Your task to perform on an android device: Open calendar and show me the first week of next month Image 0: 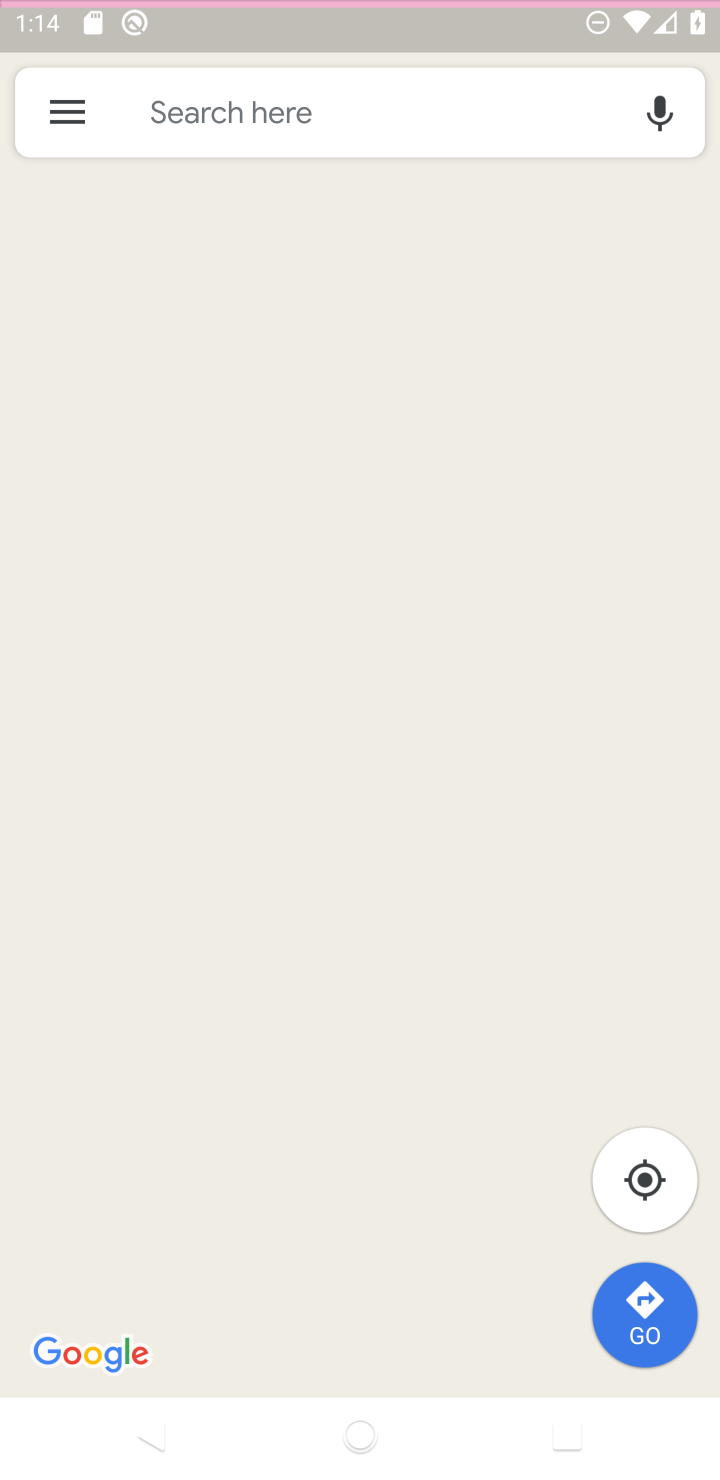
Step 0: drag from (558, 1367) to (549, 949)
Your task to perform on an android device: Open calendar and show me the first week of next month Image 1: 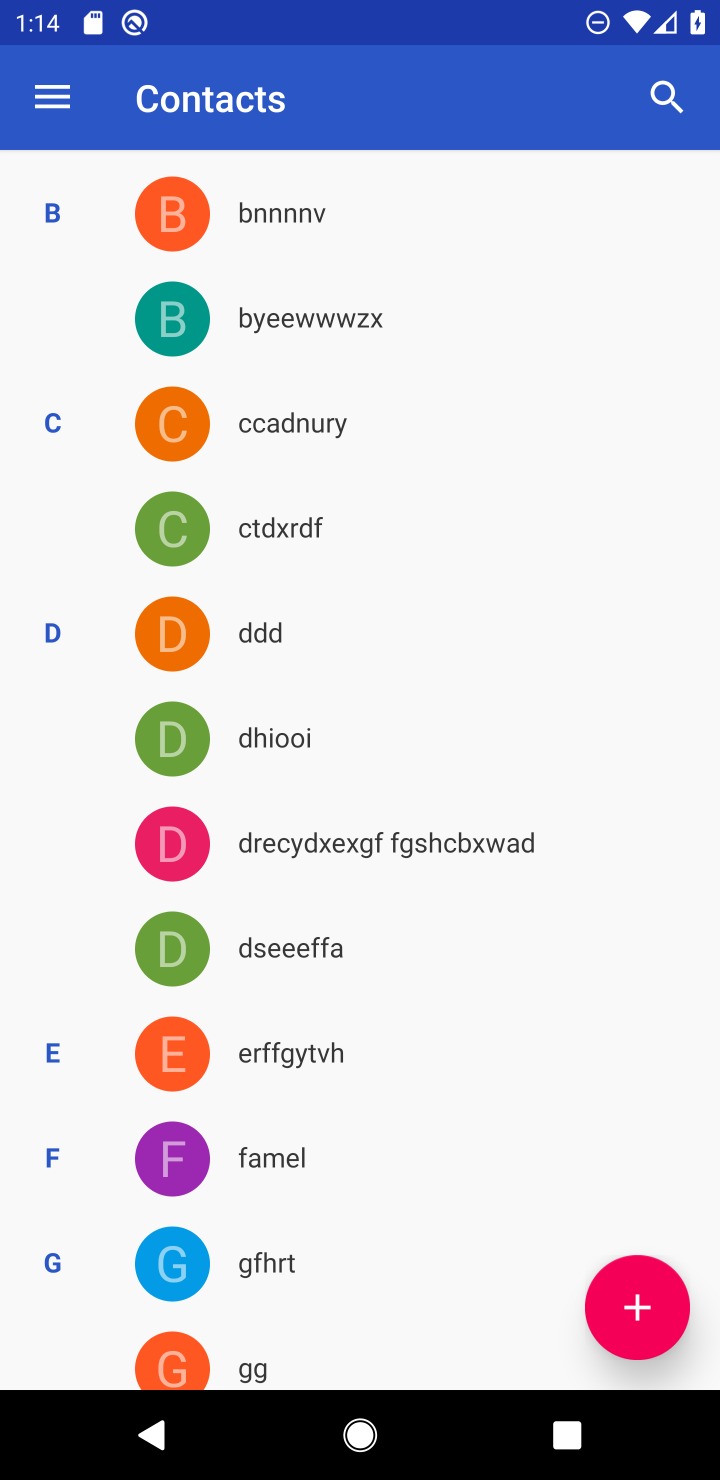
Step 1: drag from (607, 20) to (450, 1199)
Your task to perform on an android device: Open calendar and show me the first week of next month Image 2: 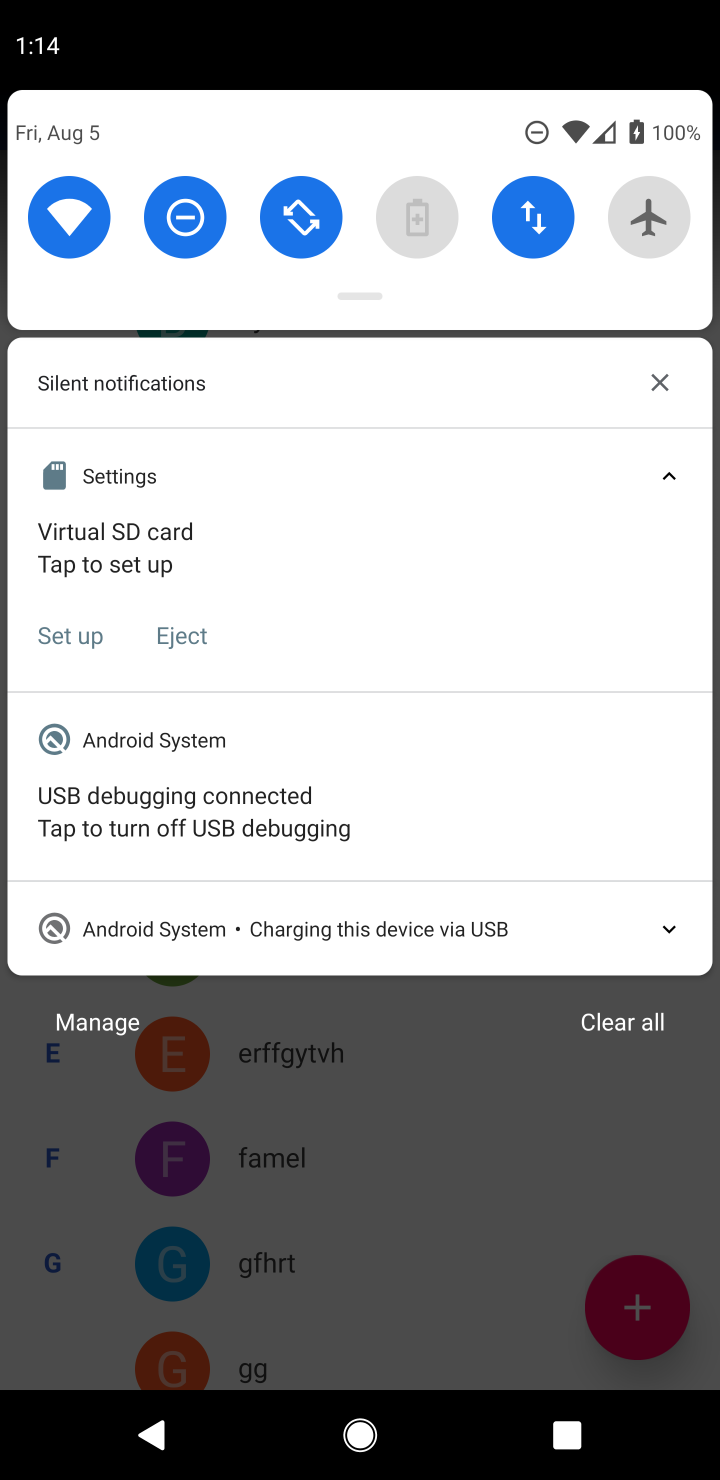
Step 2: press back button
Your task to perform on an android device: Open calendar and show me the first week of next month Image 3: 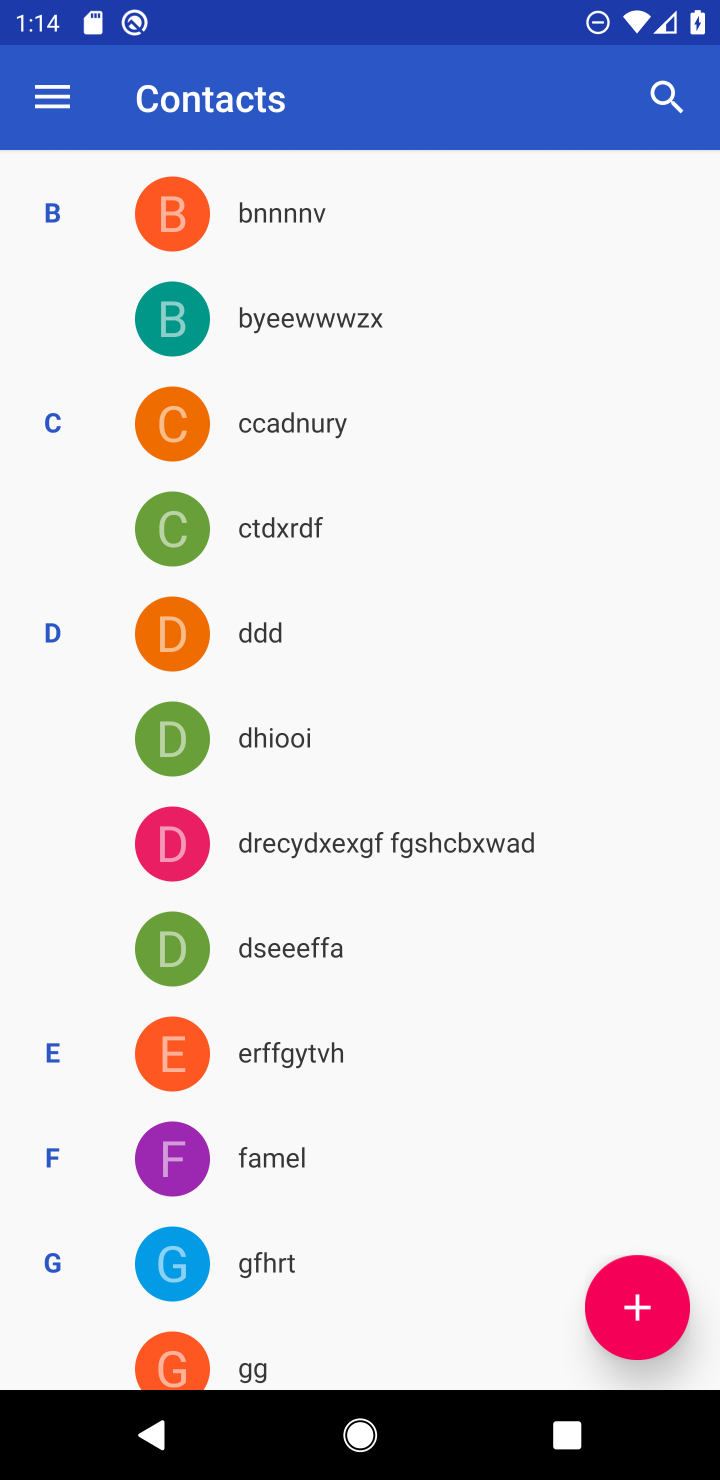
Step 3: press home button
Your task to perform on an android device: Open calendar and show me the first week of next month Image 4: 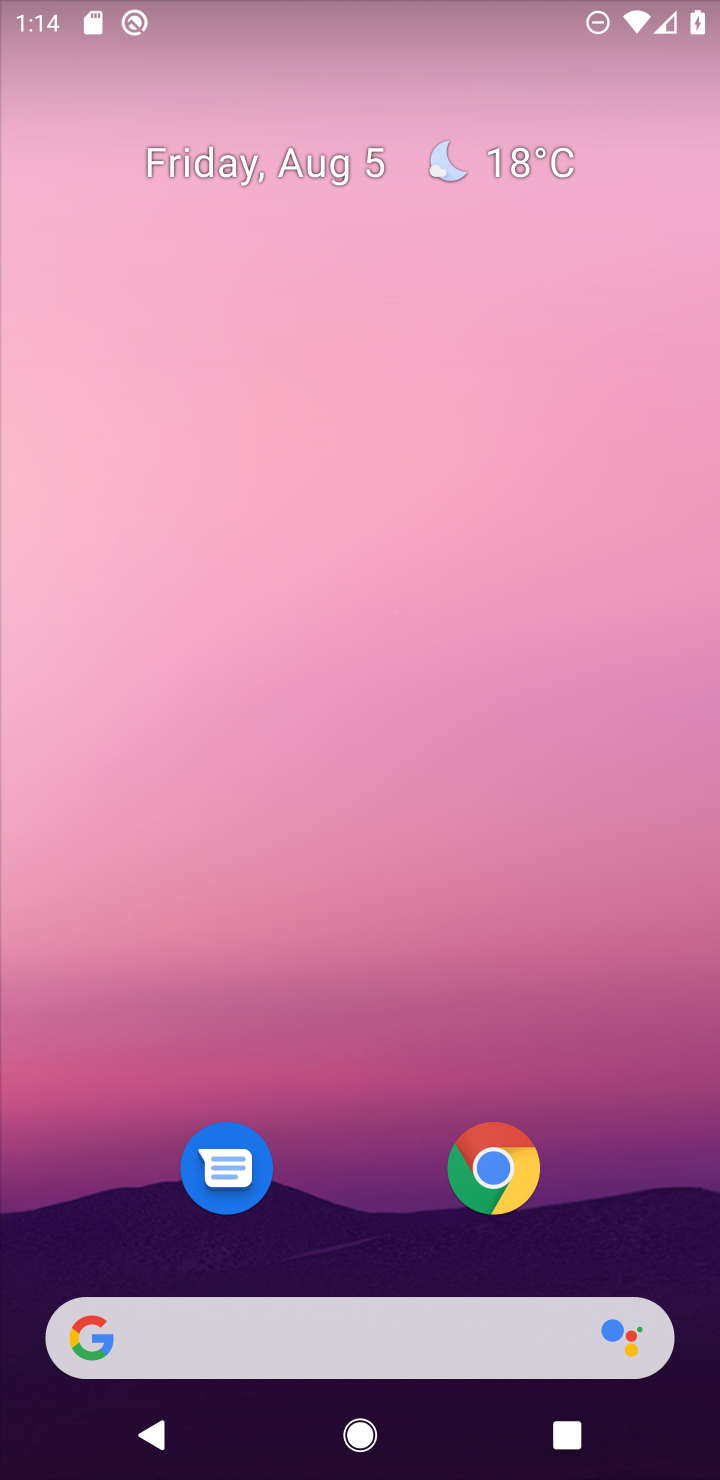
Step 4: drag from (321, 1173) to (510, 90)
Your task to perform on an android device: Open calendar and show me the first week of next month Image 5: 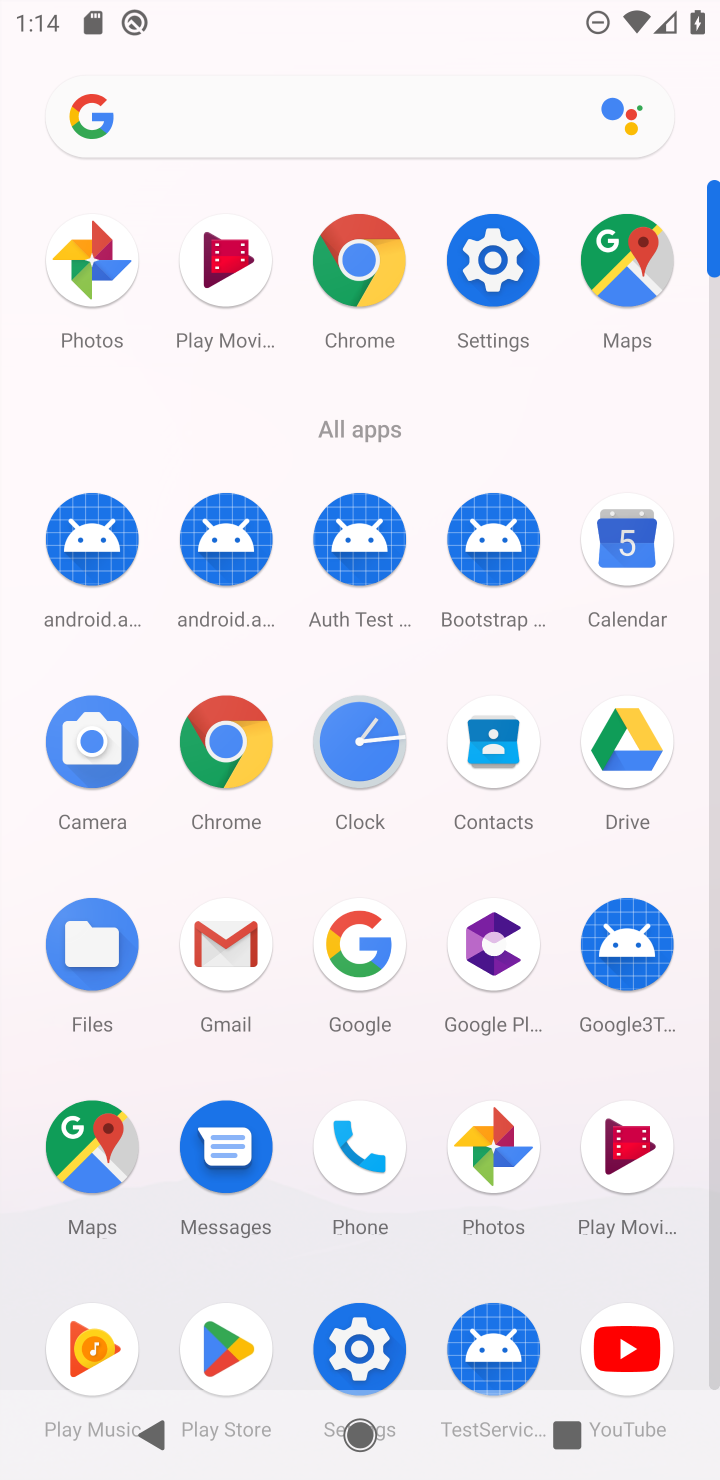
Step 5: click (599, 556)
Your task to perform on an android device: Open calendar and show me the first week of next month Image 6: 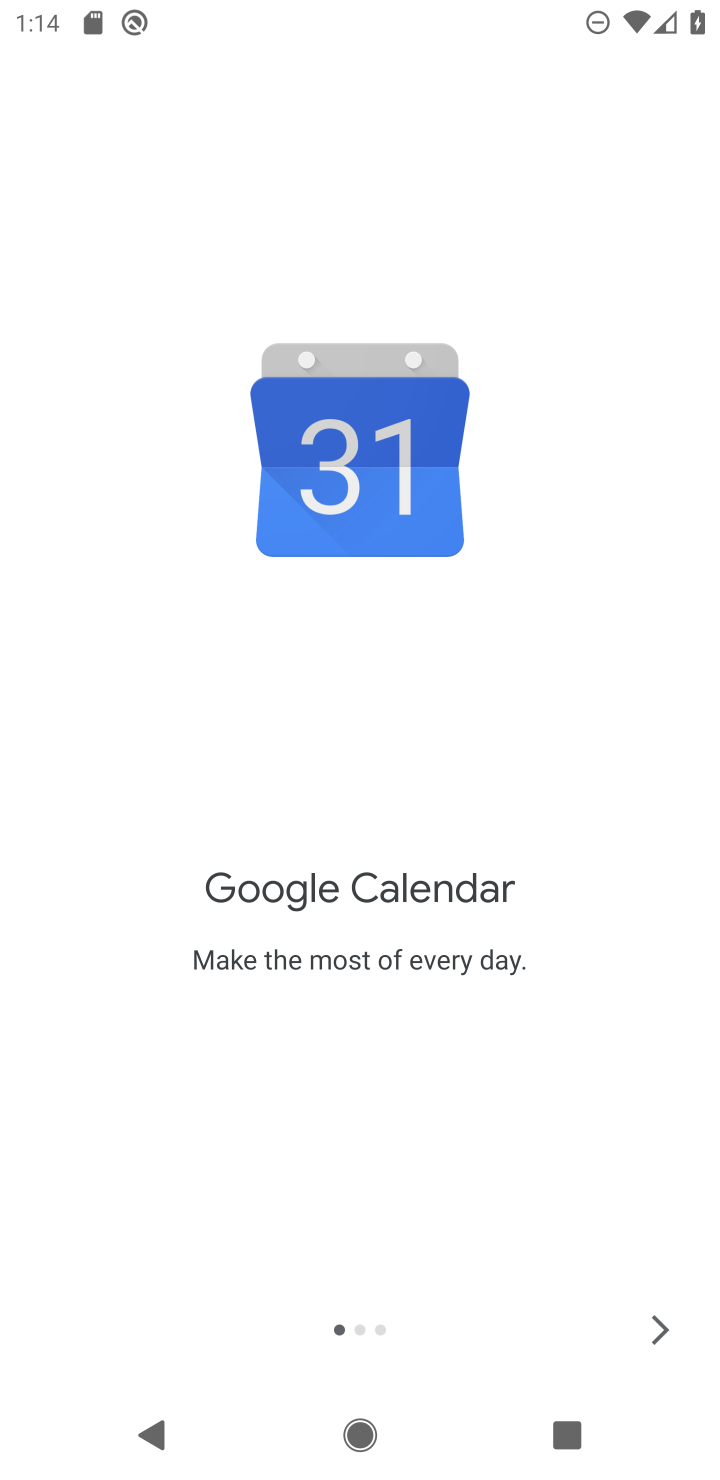
Step 6: click (674, 1326)
Your task to perform on an android device: Open calendar and show me the first week of next month Image 7: 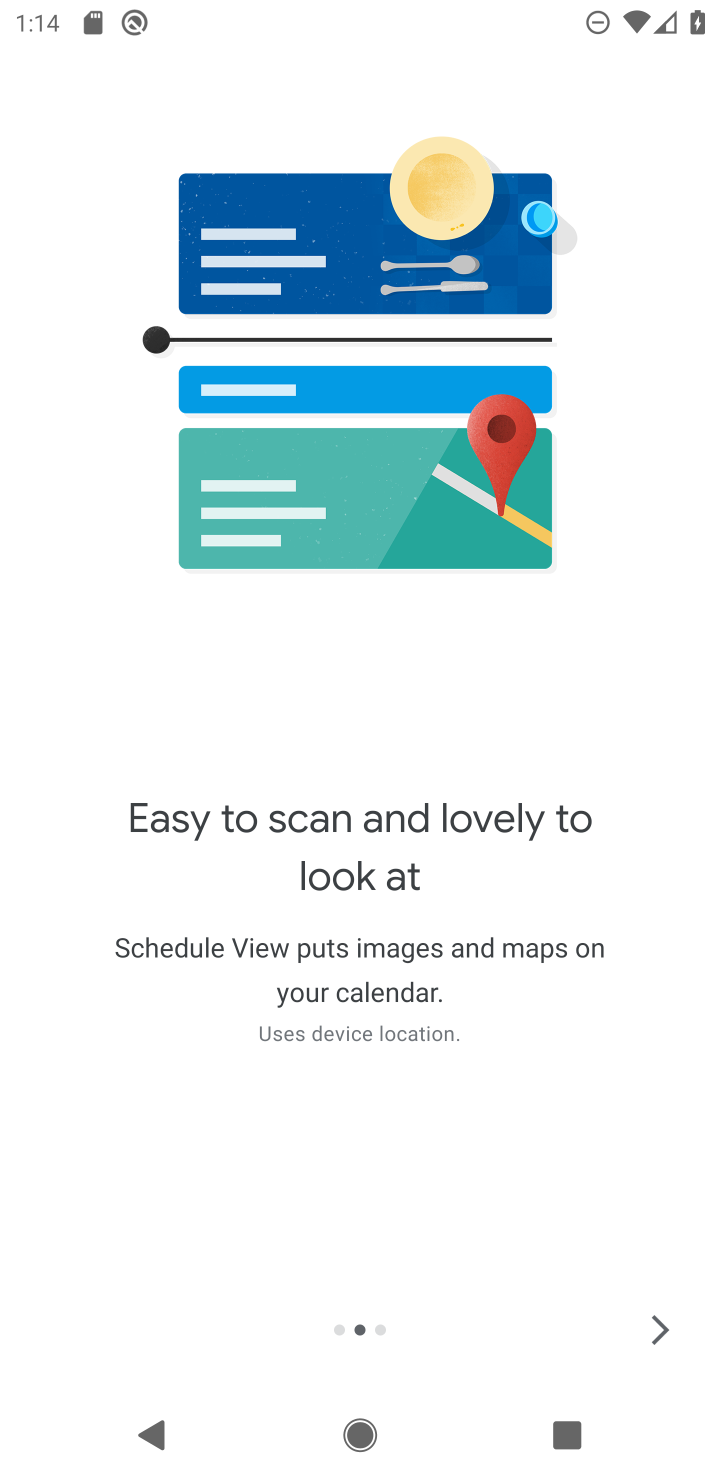
Step 7: click (663, 1326)
Your task to perform on an android device: Open calendar and show me the first week of next month Image 8: 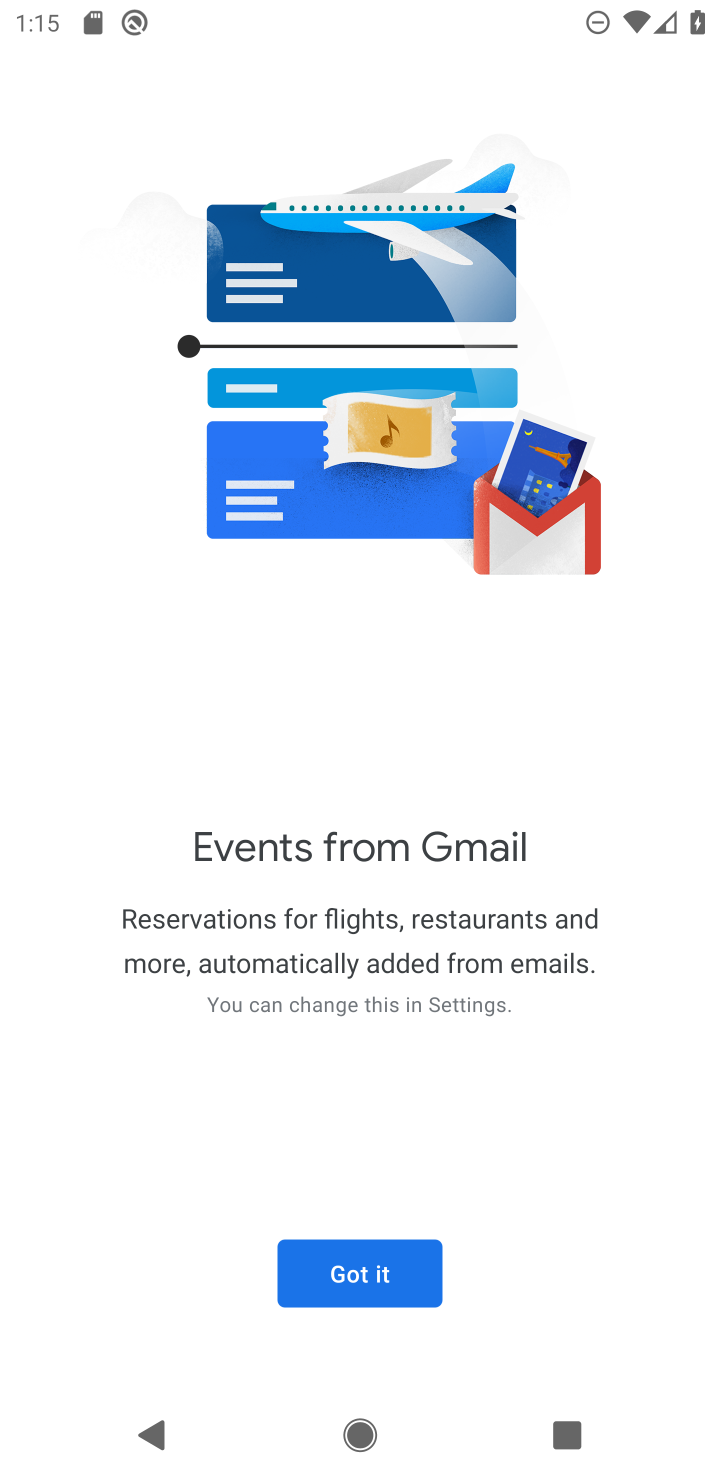
Step 8: click (395, 1274)
Your task to perform on an android device: Open calendar and show me the first week of next month Image 9: 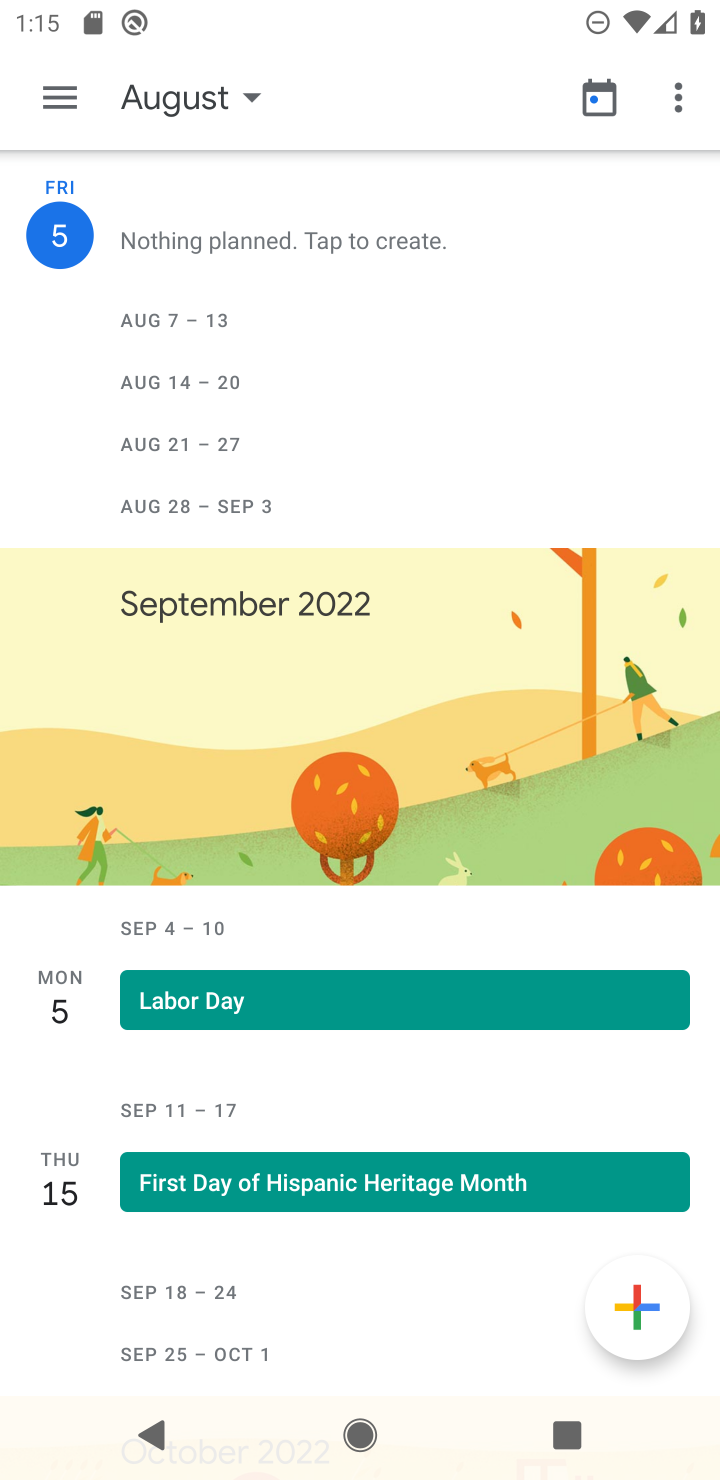
Step 9: click (181, 96)
Your task to perform on an android device: Open calendar and show me the first week of next month Image 10: 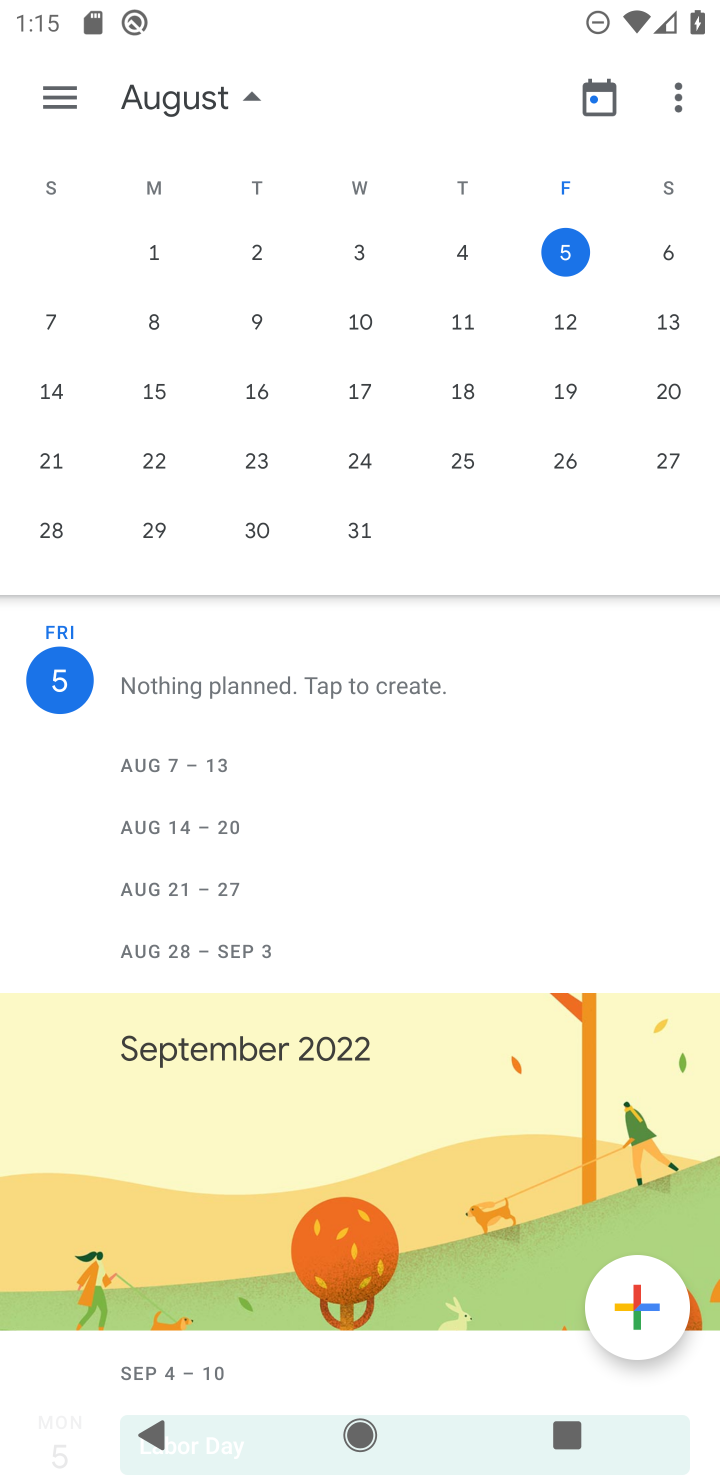
Step 10: drag from (672, 385) to (2, 359)
Your task to perform on an android device: Open calendar and show me the first week of next month Image 11: 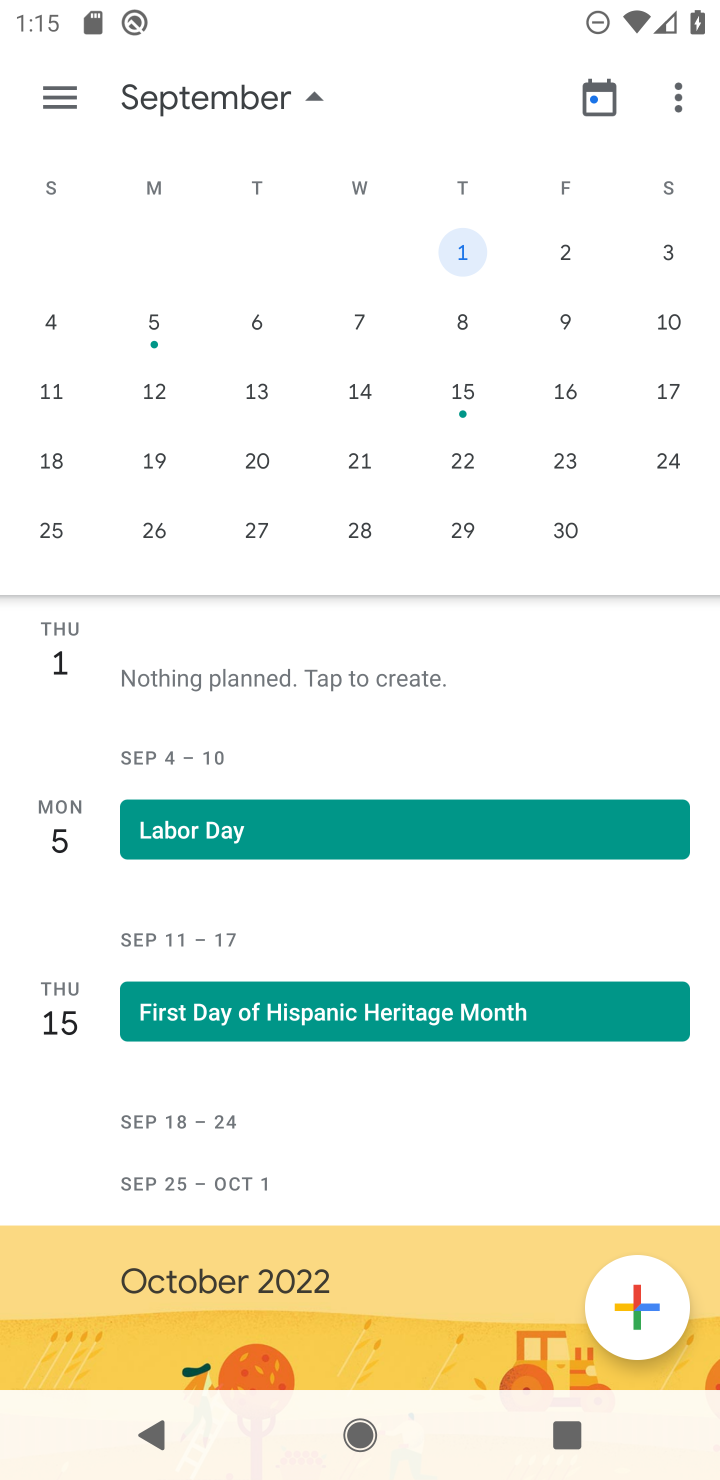
Step 11: click (461, 244)
Your task to perform on an android device: Open calendar and show me the first week of next month Image 12: 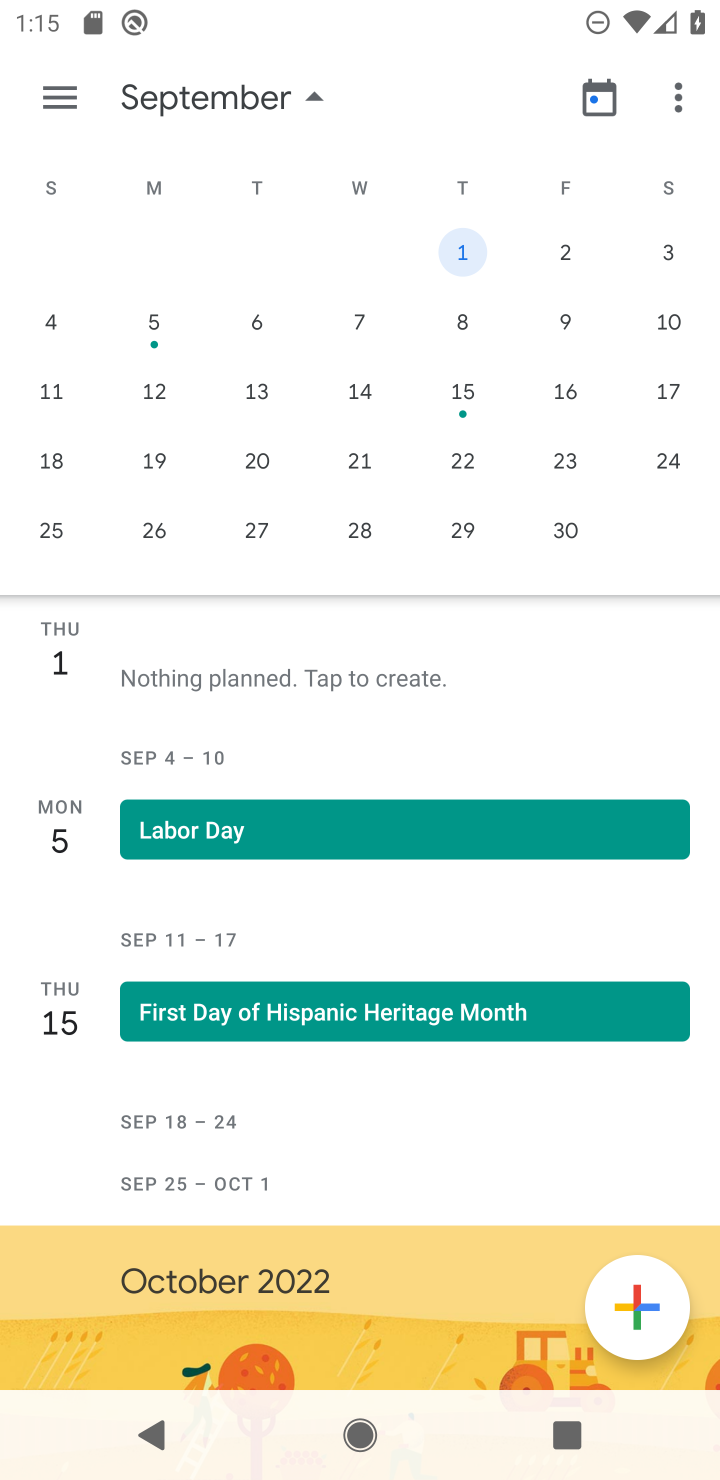
Step 12: task complete